Your task to perform on an android device: Set the phone to "Do not disturb". Image 0: 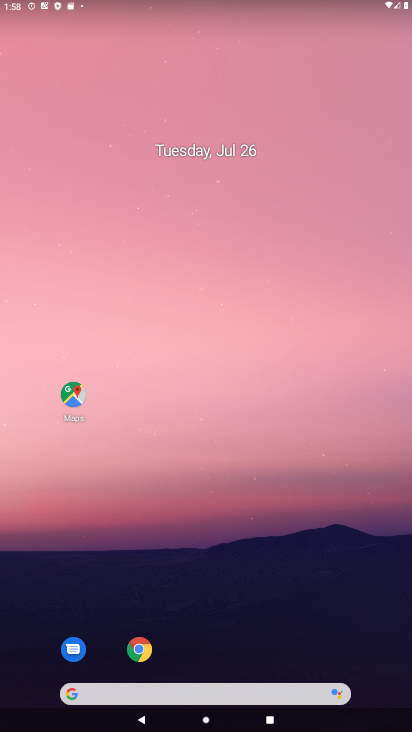
Step 0: drag from (345, 610) to (164, 44)
Your task to perform on an android device: Set the phone to "Do not disturb". Image 1: 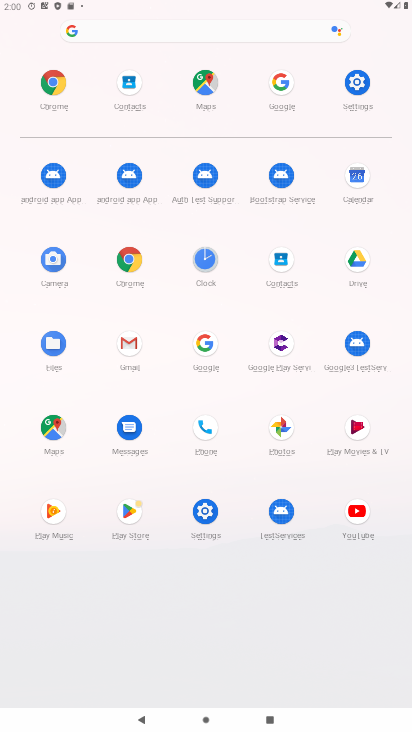
Step 1: drag from (162, 1) to (226, 620)
Your task to perform on an android device: Set the phone to "Do not disturb". Image 2: 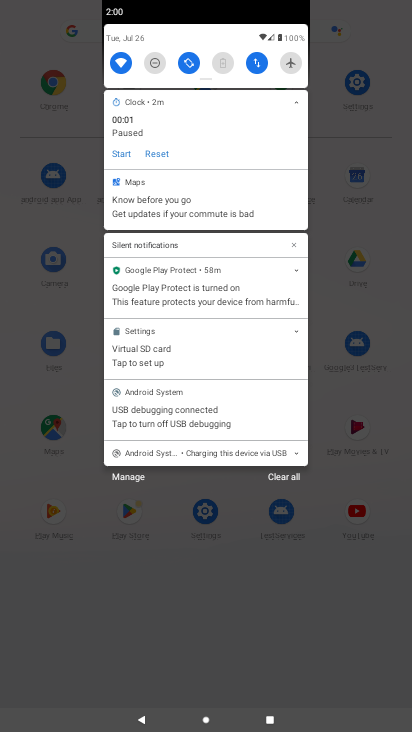
Step 2: click (158, 65)
Your task to perform on an android device: Set the phone to "Do not disturb". Image 3: 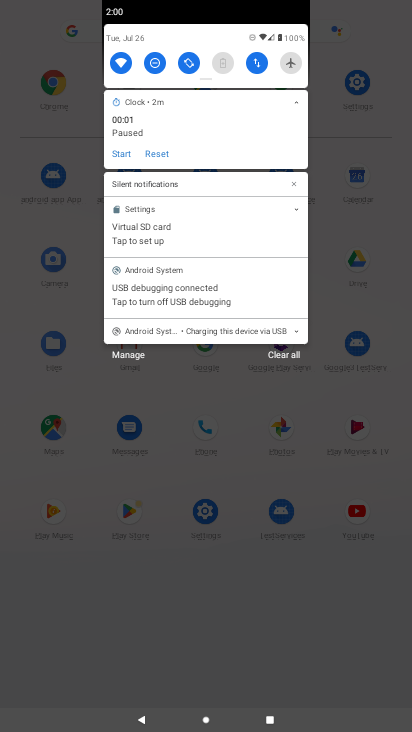
Step 3: task complete